Your task to perform on an android device: What's on my calendar today? Image 0: 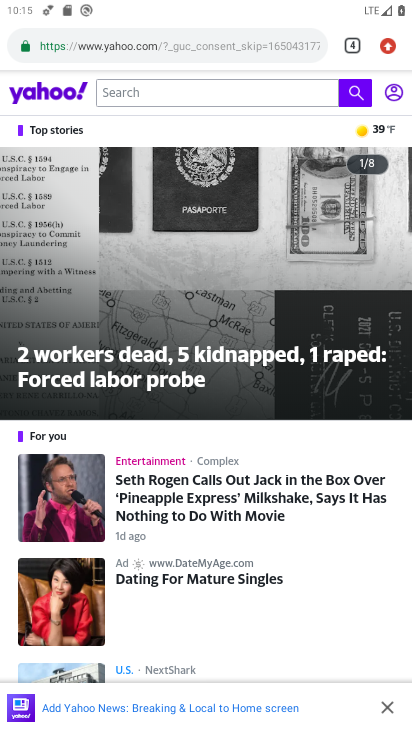
Step 0: press home button
Your task to perform on an android device: What's on my calendar today? Image 1: 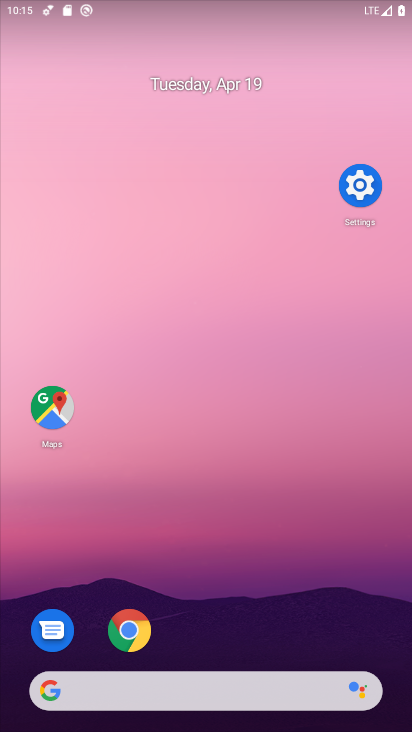
Step 1: drag from (157, 390) to (223, 118)
Your task to perform on an android device: What's on my calendar today? Image 2: 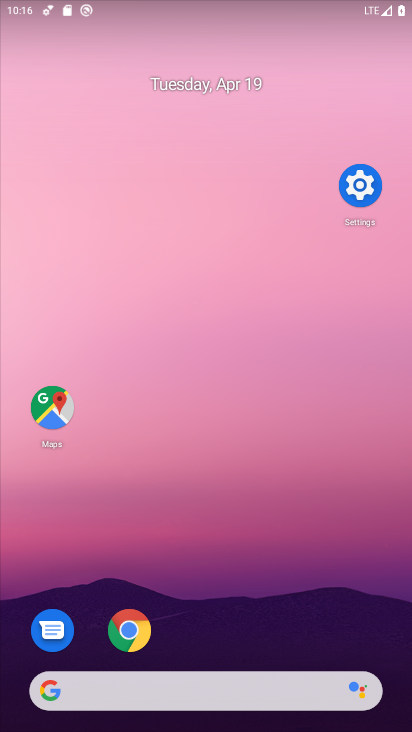
Step 2: drag from (226, 415) to (221, 0)
Your task to perform on an android device: What's on my calendar today? Image 3: 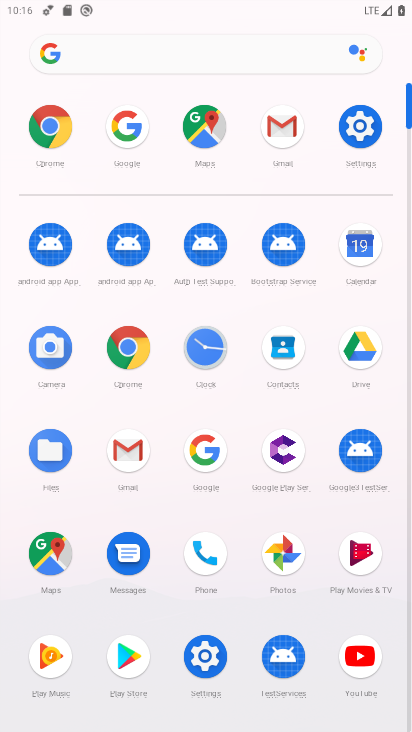
Step 3: click (366, 230)
Your task to perform on an android device: What's on my calendar today? Image 4: 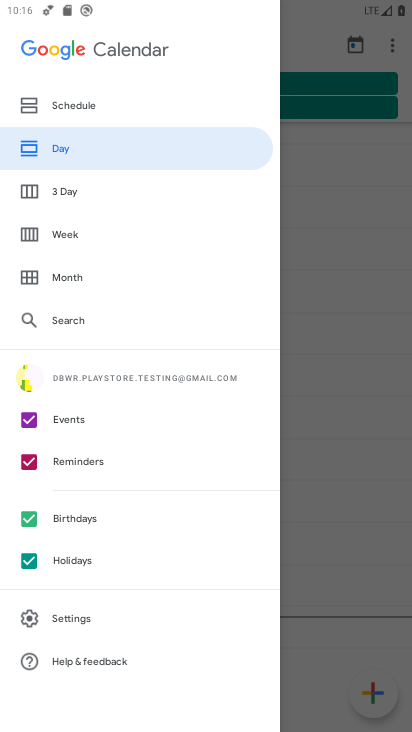
Step 4: click (333, 273)
Your task to perform on an android device: What's on my calendar today? Image 5: 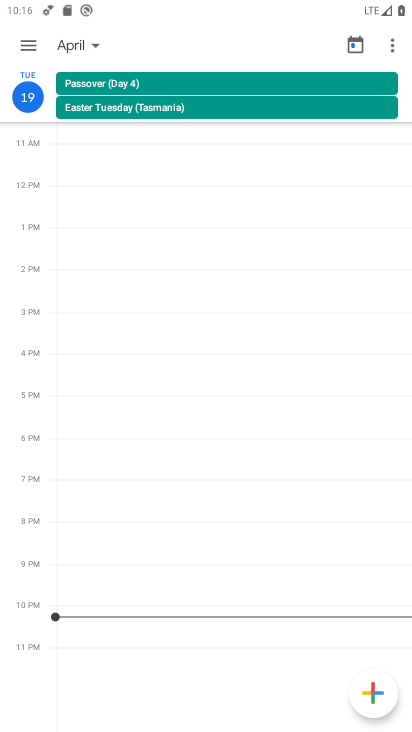
Step 5: task complete